Your task to perform on an android device: Open privacy settings Image 0: 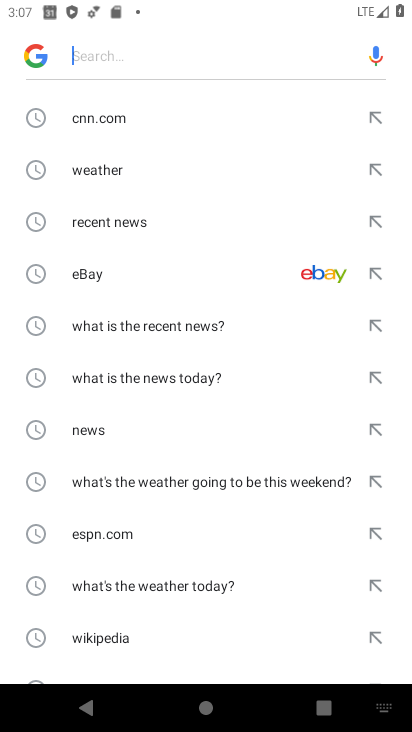
Step 0: press home button
Your task to perform on an android device: Open privacy settings Image 1: 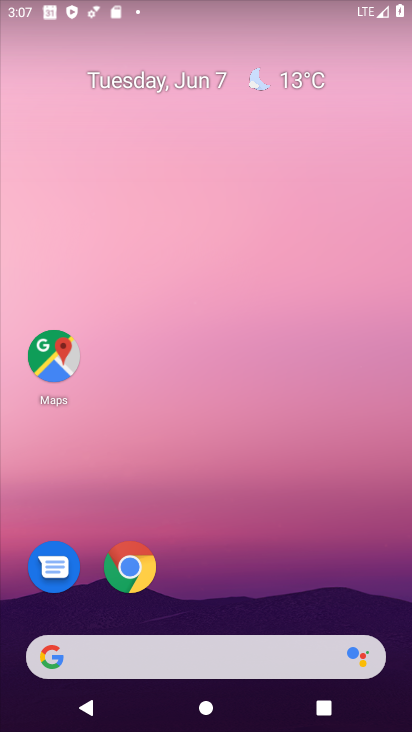
Step 1: click (135, 572)
Your task to perform on an android device: Open privacy settings Image 2: 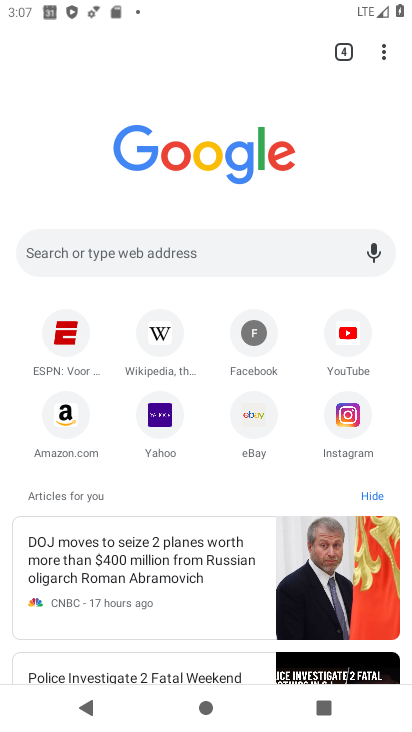
Step 2: drag from (381, 51) to (211, 433)
Your task to perform on an android device: Open privacy settings Image 3: 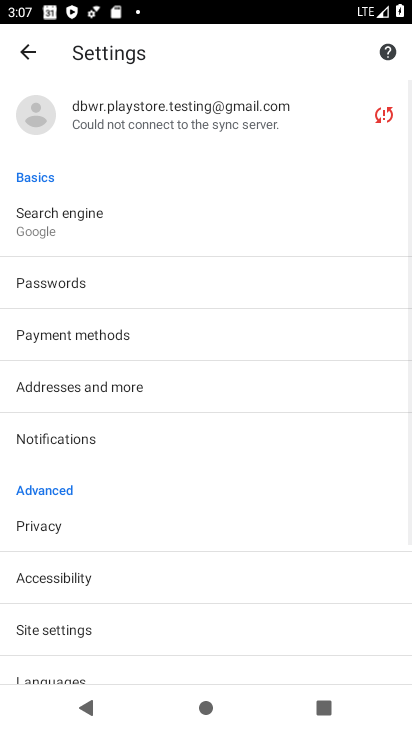
Step 3: click (66, 527)
Your task to perform on an android device: Open privacy settings Image 4: 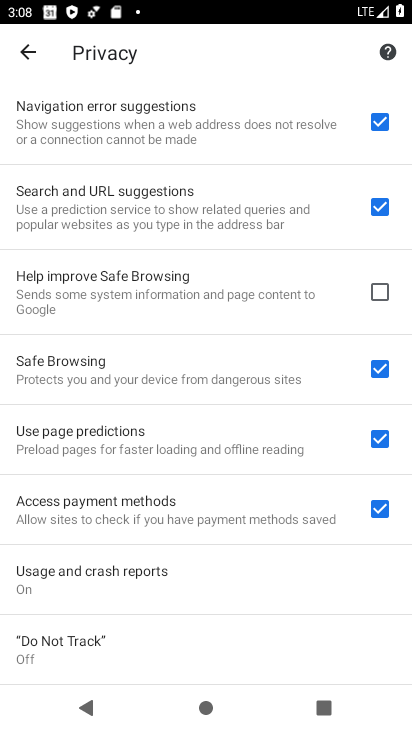
Step 4: task complete